Your task to perform on an android device: Open the phone app and click the voicemail tab. Image 0: 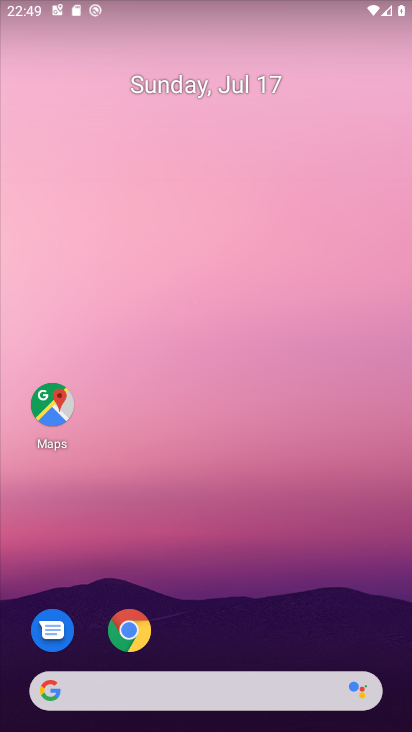
Step 0: drag from (225, 637) to (321, 12)
Your task to perform on an android device: Open the phone app and click the voicemail tab. Image 1: 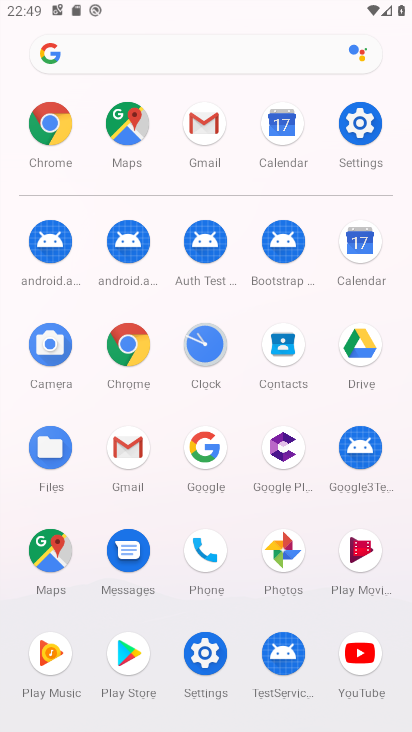
Step 1: click (215, 571)
Your task to perform on an android device: Open the phone app and click the voicemail tab. Image 2: 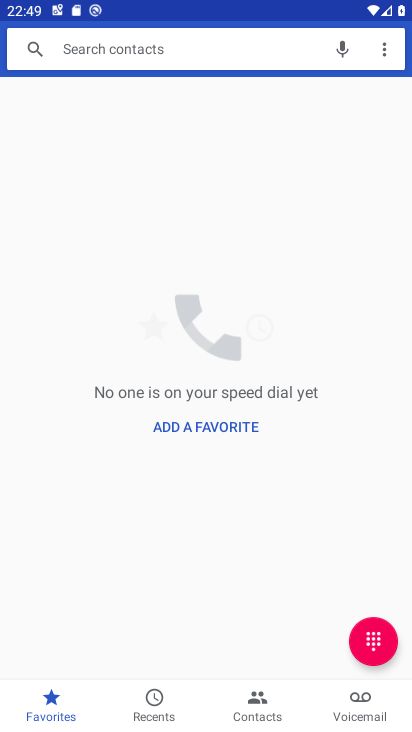
Step 2: click (363, 711)
Your task to perform on an android device: Open the phone app and click the voicemail tab. Image 3: 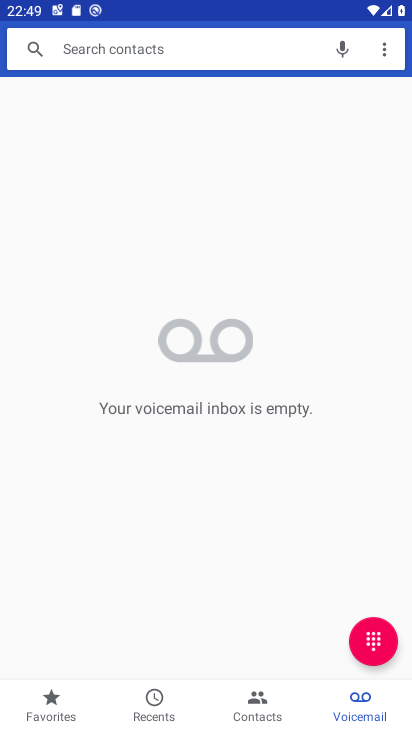
Step 3: task complete